Your task to perform on an android device: move a message to another label in the gmail app Image 0: 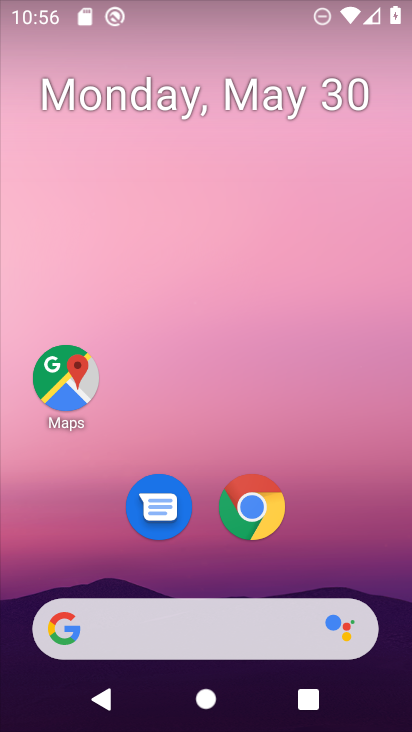
Step 0: drag from (392, 624) to (225, 43)
Your task to perform on an android device: move a message to another label in the gmail app Image 1: 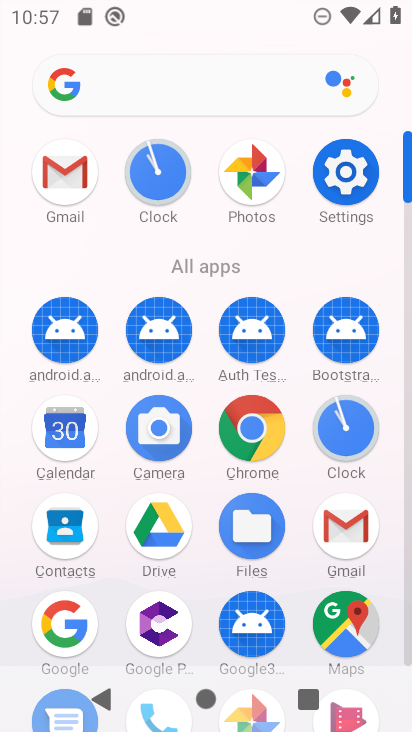
Step 1: click (353, 531)
Your task to perform on an android device: move a message to another label in the gmail app Image 2: 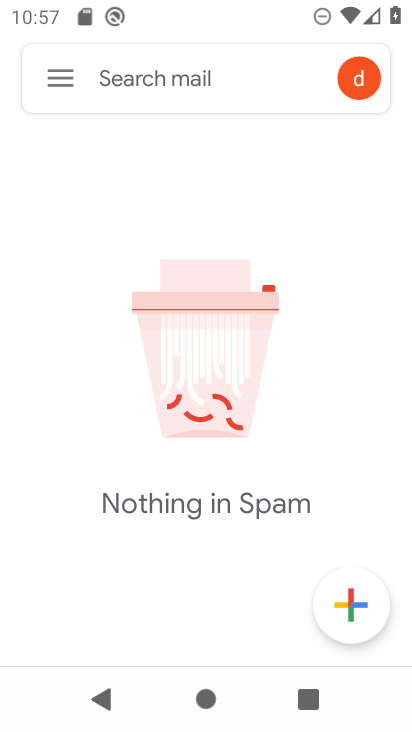
Step 2: task complete